Your task to perform on an android device: create a new album in the google photos Image 0: 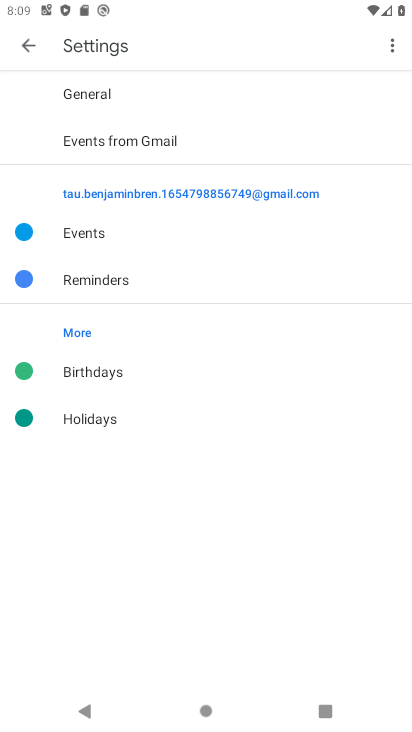
Step 0: press home button
Your task to perform on an android device: create a new album in the google photos Image 1: 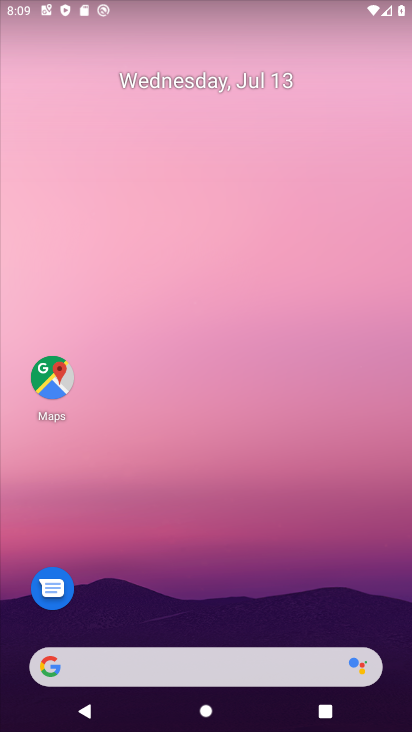
Step 1: drag from (132, 702) to (212, 0)
Your task to perform on an android device: create a new album in the google photos Image 2: 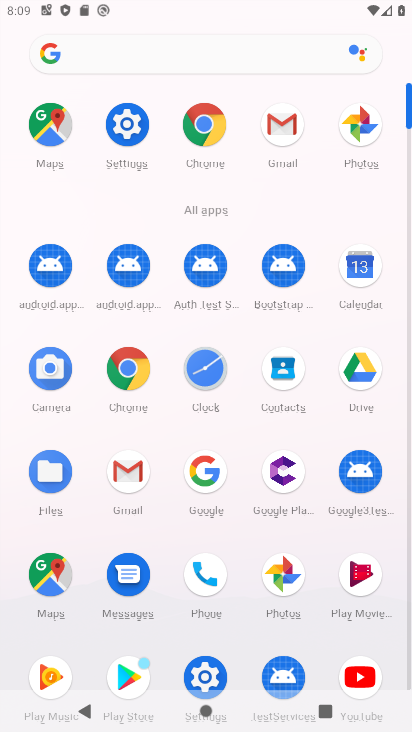
Step 2: click (369, 133)
Your task to perform on an android device: create a new album in the google photos Image 3: 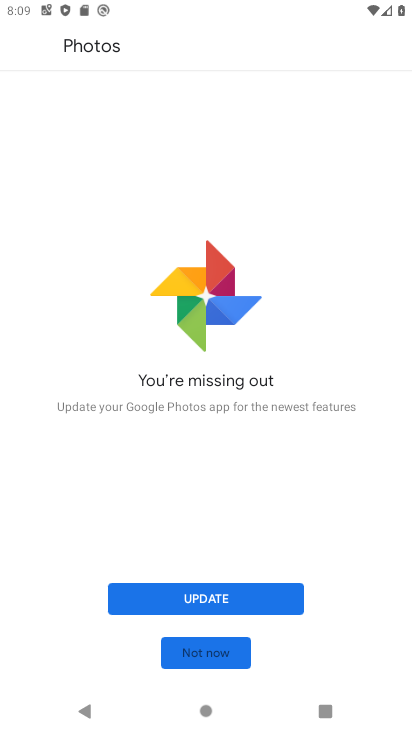
Step 3: click (185, 595)
Your task to perform on an android device: create a new album in the google photos Image 4: 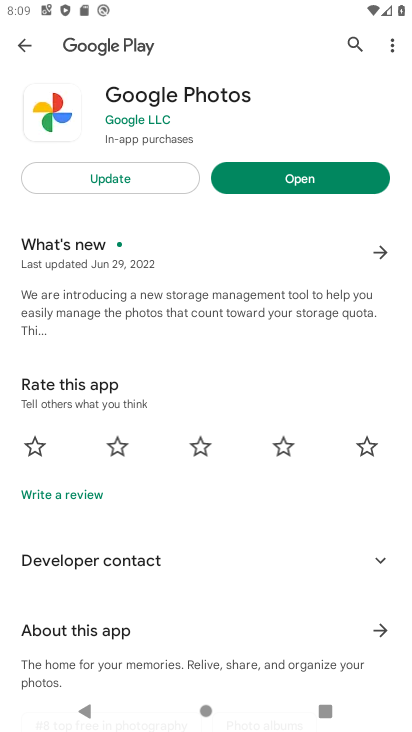
Step 4: click (148, 184)
Your task to perform on an android device: create a new album in the google photos Image 5: 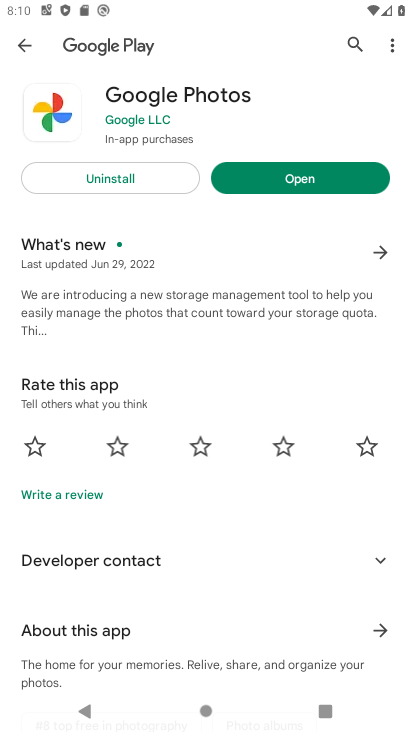
Step 5: click (307, 174)
Your task to perform on an android device: create a new album in the google photos Image 6: 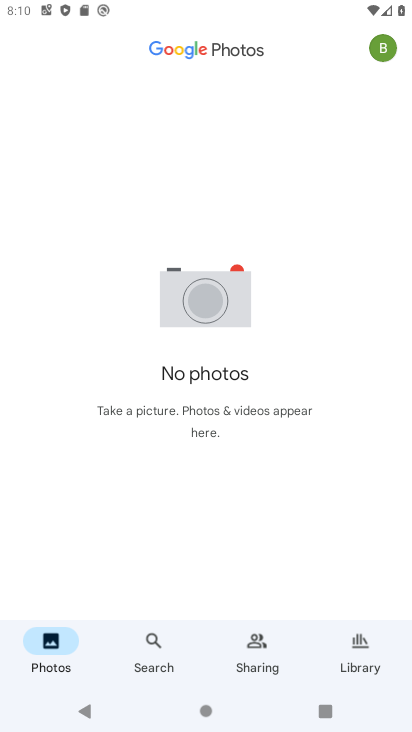
Step 6: task complete